Your task to perform on an android device: set an alarm Image 0: 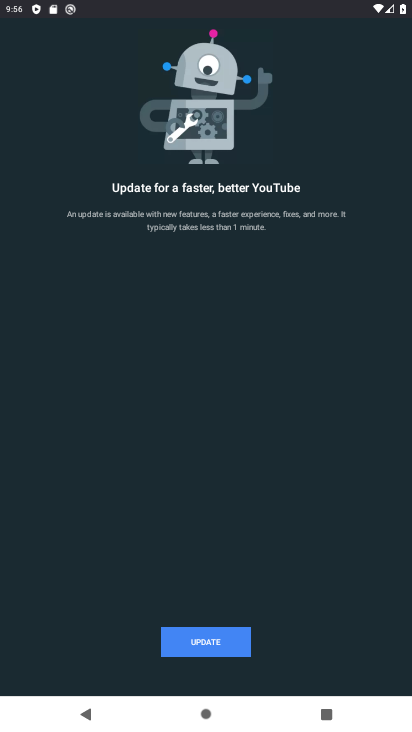
Step 0: press back button
Your task to perform on an android device: set an alarm Image 1: 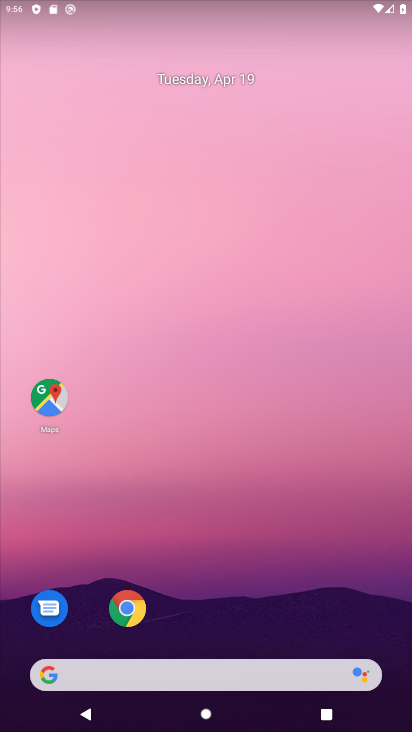
Step 1: drag from (198, 652) to (307, 85)
Your task to perform on an android device: set an alarm Image 2: 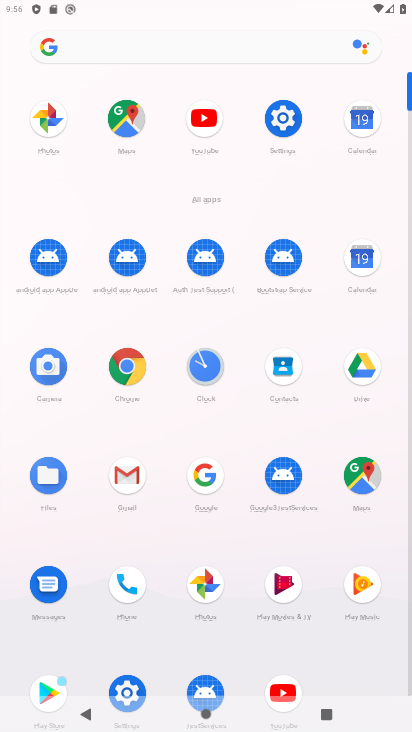
Step 2: click (203, 366)
Your task to perform on an android device: set an alarm Image 3: 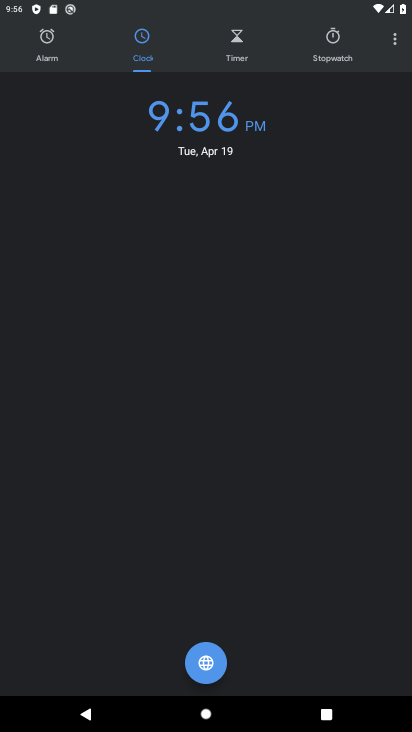
Step 3: click (48, 17)
Your task to perform on an android device: set an alarm Image 4: 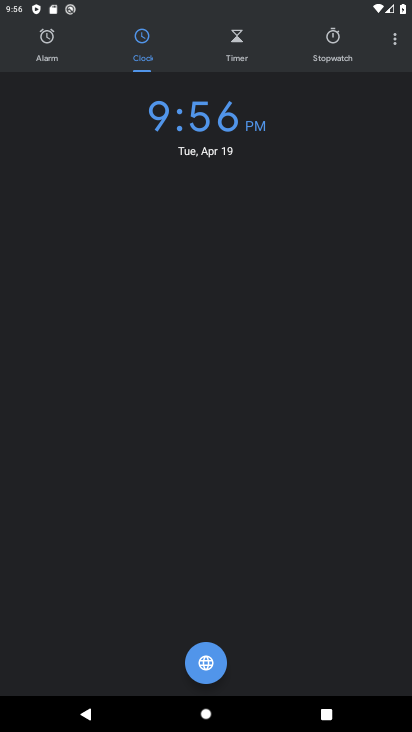
Step 4: click (56, 45)
Your task to perform on an android device: set an alarm Image 5: 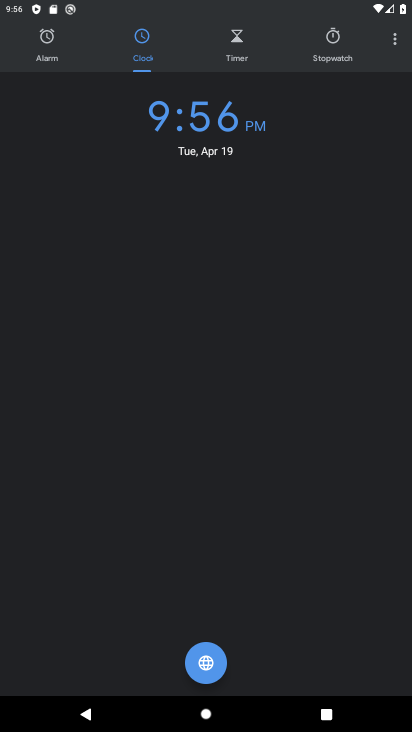
Step 5: click (70, 50)
Your task to perform on an android device: set an alarm Image 6: 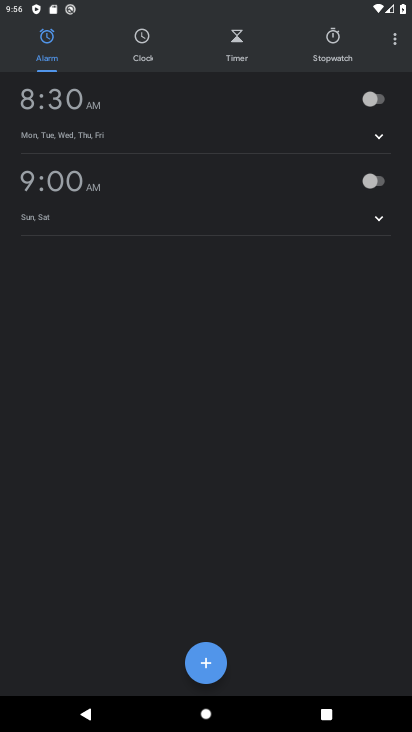
Step 6: click (383, 101)
Your task to perform on an android device: set an alarm Image 7: 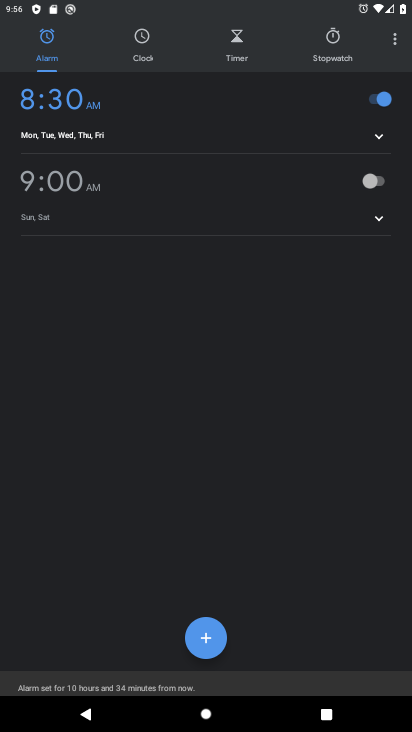
Step 7: task complete